Your task to perform on an android device: What's the weather going to be this weekend? Image 0: 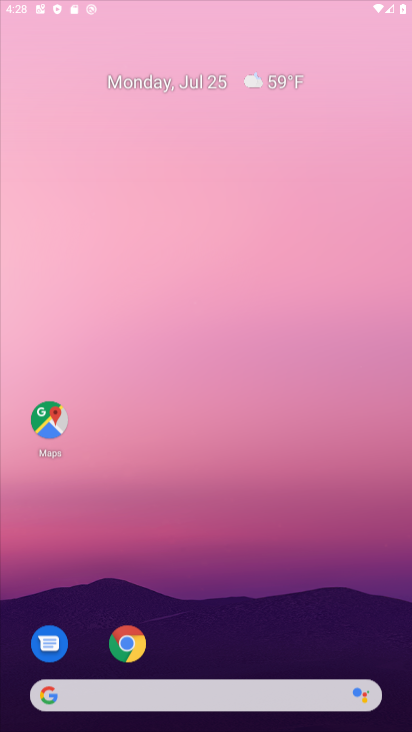
Step 0: drag from (226, 611) to (268, 167)
Your task to perform on an android device: What's the weather going to be this weekend? Image 1: 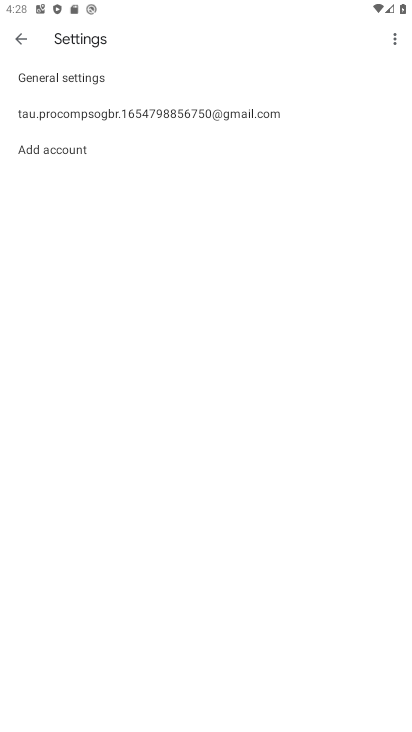
Step 1: press home button
Your task to perform on an android device: What's the weather going to be this weekend? Image 2: 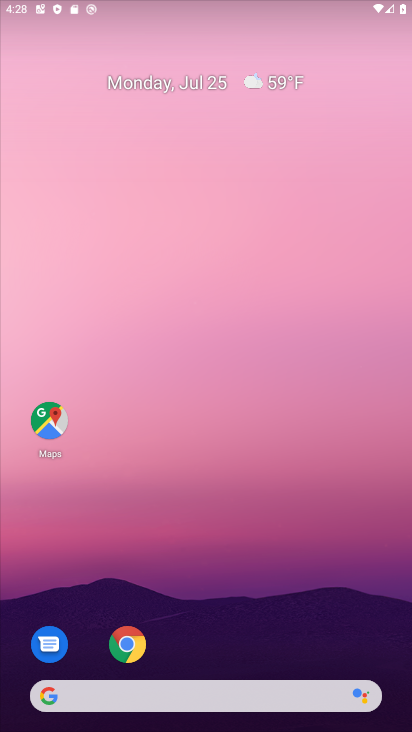
Step 2: drag from (221, 625) to (221, 103)
Your task to perform on an android device: What's the weather going to be this weekend? Image 3: 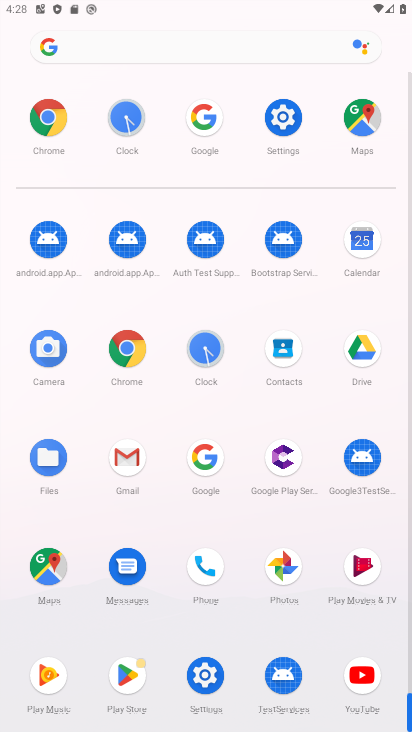
Step 3: click (200, 463)
Your task to perform on an android device: What's the weather going to be this weekend? Image 4: 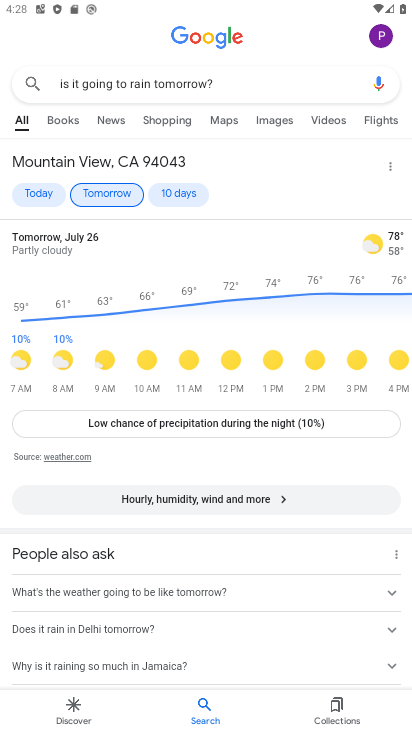
Step 4: click (275, 83)
Your task to perform on an android device: What's the weather going to be this weekend? Image 5: 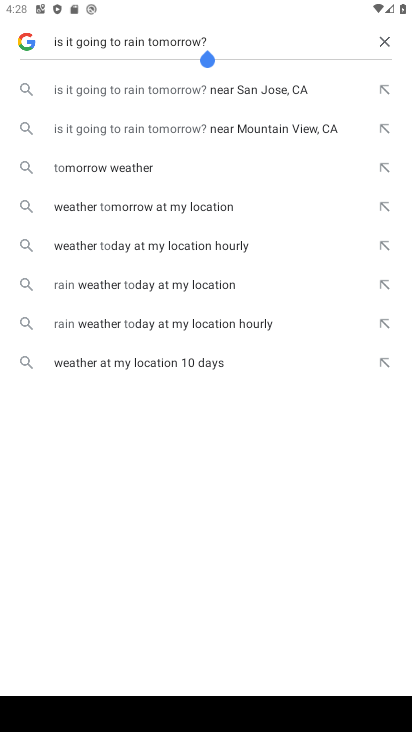
Step 5: click (383, 41)
Your task to perform on an android device: What's the weather going to be this weekend? Image 6: 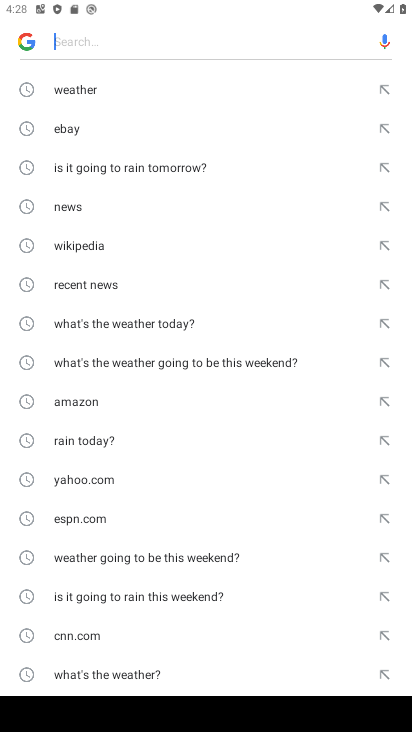
Step 6: click (104, 361)
Your task to perform on an android device: What's the weather going to be this weekend? Image 7: 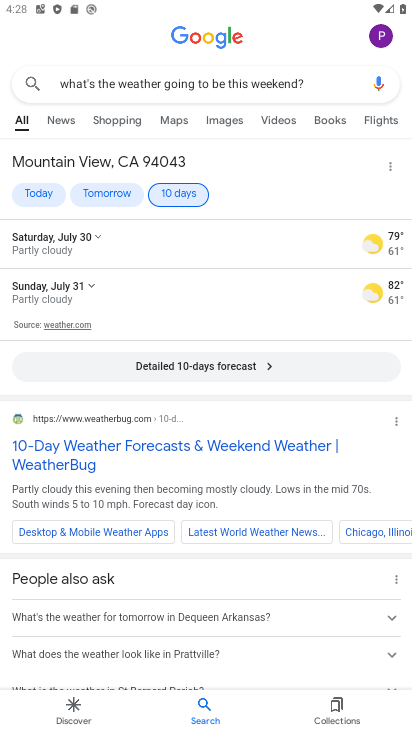
Step 7: click (265, 360)
Your task to perform on an android device: What's the weather going to be this weekend? Image 8: 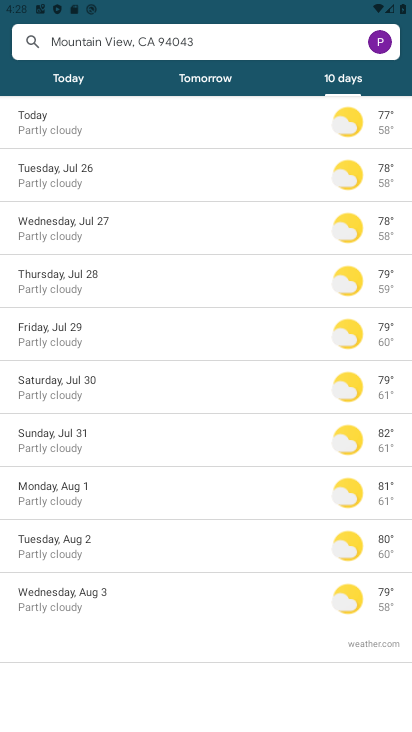
Step 8: task complete